Your task to perform on an android device: Open wifi settings Image 0: 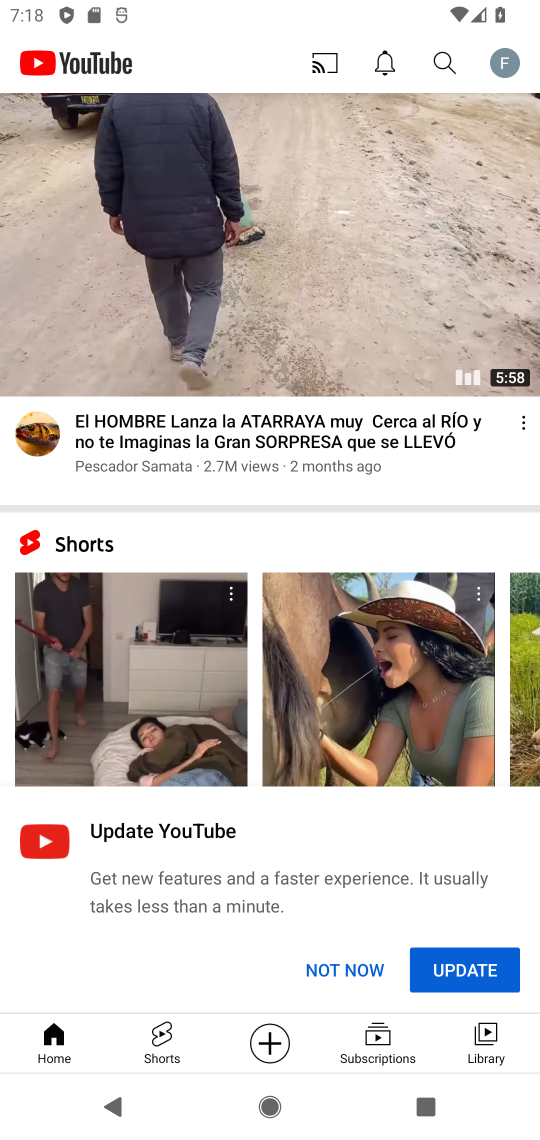
Step 0: press home button
Your task to perform on an android device: Open wifi settings Image 1: 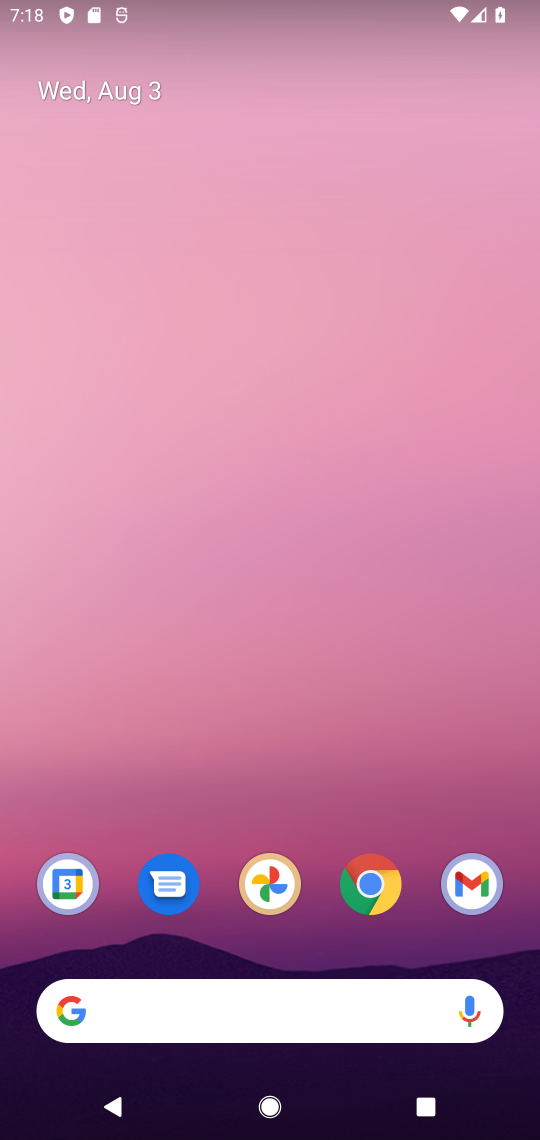
Step 1: drag from (280, 656) to (367, 106)
Your task to perform on an android device: Open wifi settings Image 2: 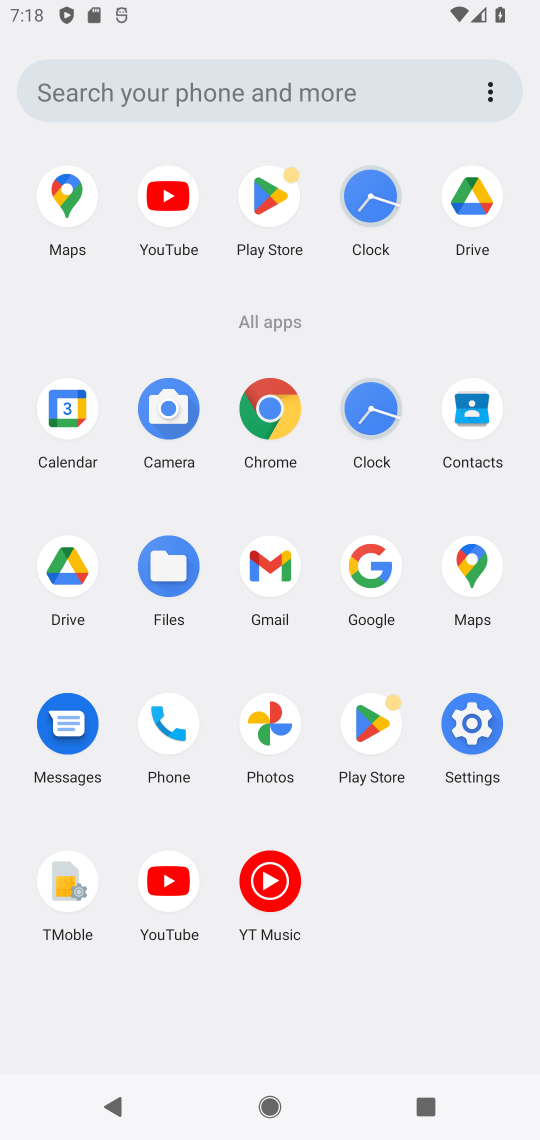
Step 2: click (471, 732)
Your task to perform on an android device: Open wifi settings Image 3: 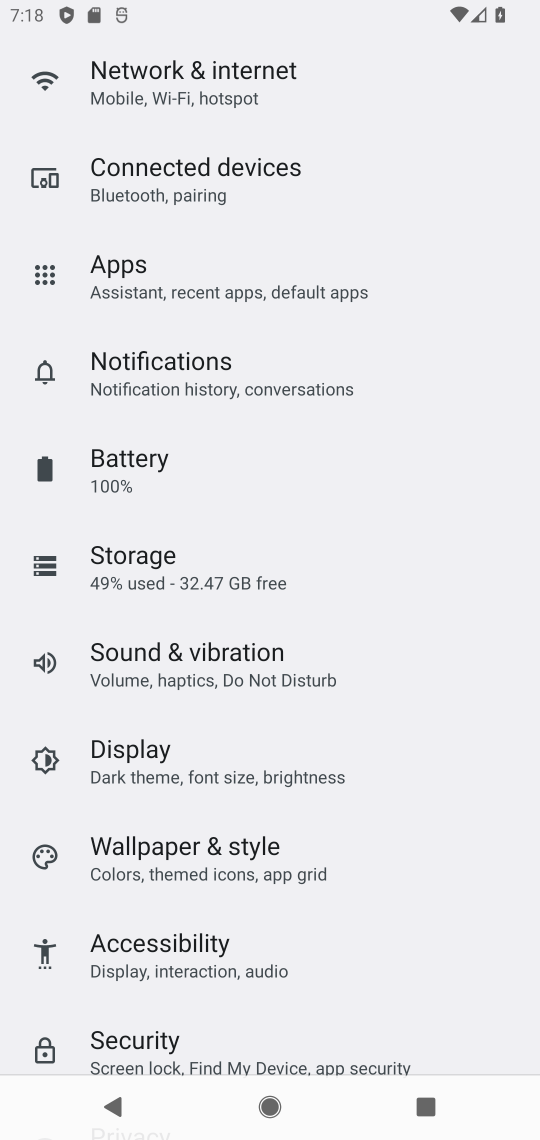
Step 3: click (244, 95)
Your task to perform on an android device: Open wifi settings Image 4: 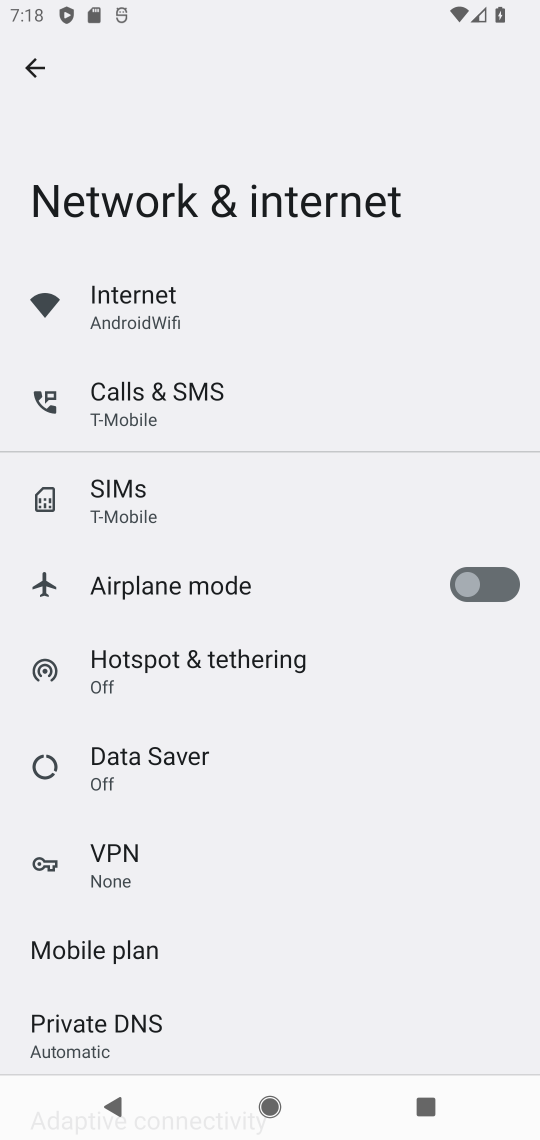
Step 4: task complete